Your task to perform on an android device: Open the web browser Image 0: 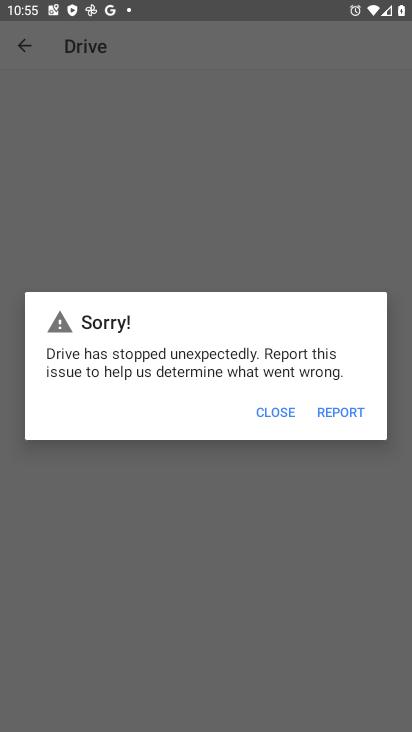
Step 0: click (173, 624)
Your task to perform on an android device: Open the web browser Image 1: 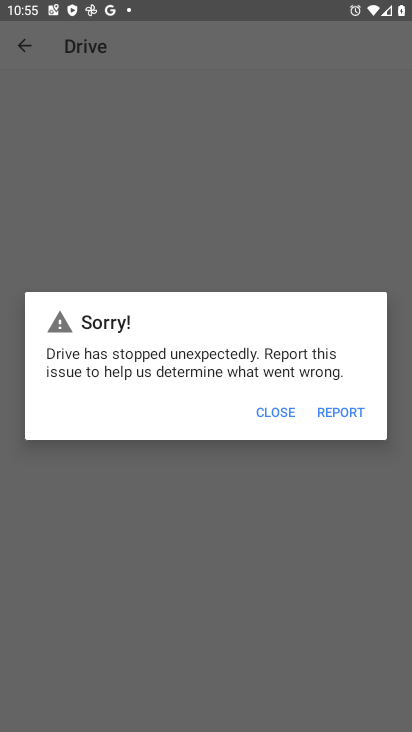
Step 1: press home button
Your task to perform on an android device: Open the web browser Image 2: 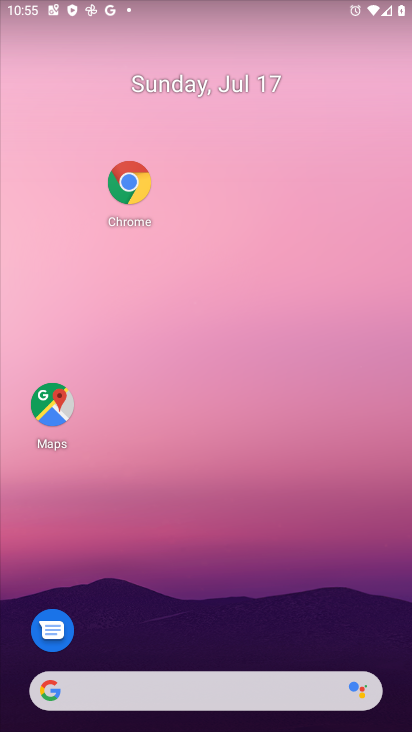
Step 2: click (129, 211)
Your task to perform on an android device: Open the web browser Image 3: 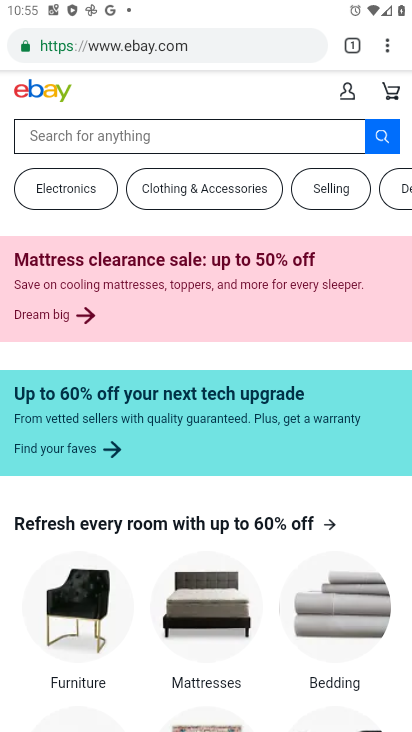
Step 3: task complete